Your task to perform on an android device: open app "Firefox Browser" Image 0: 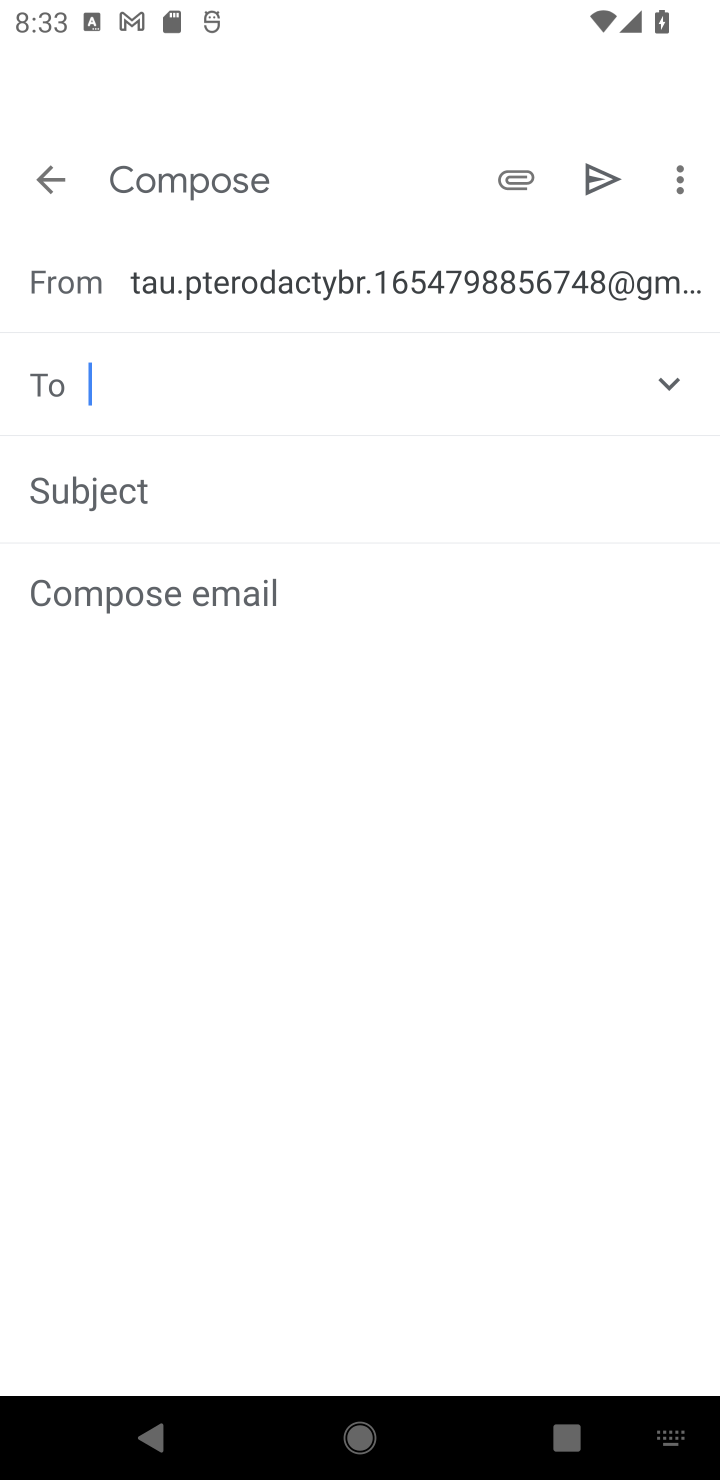
Step 0: press home button
Your task to perform on an android device: open app "Firefox Browser" Image 1: 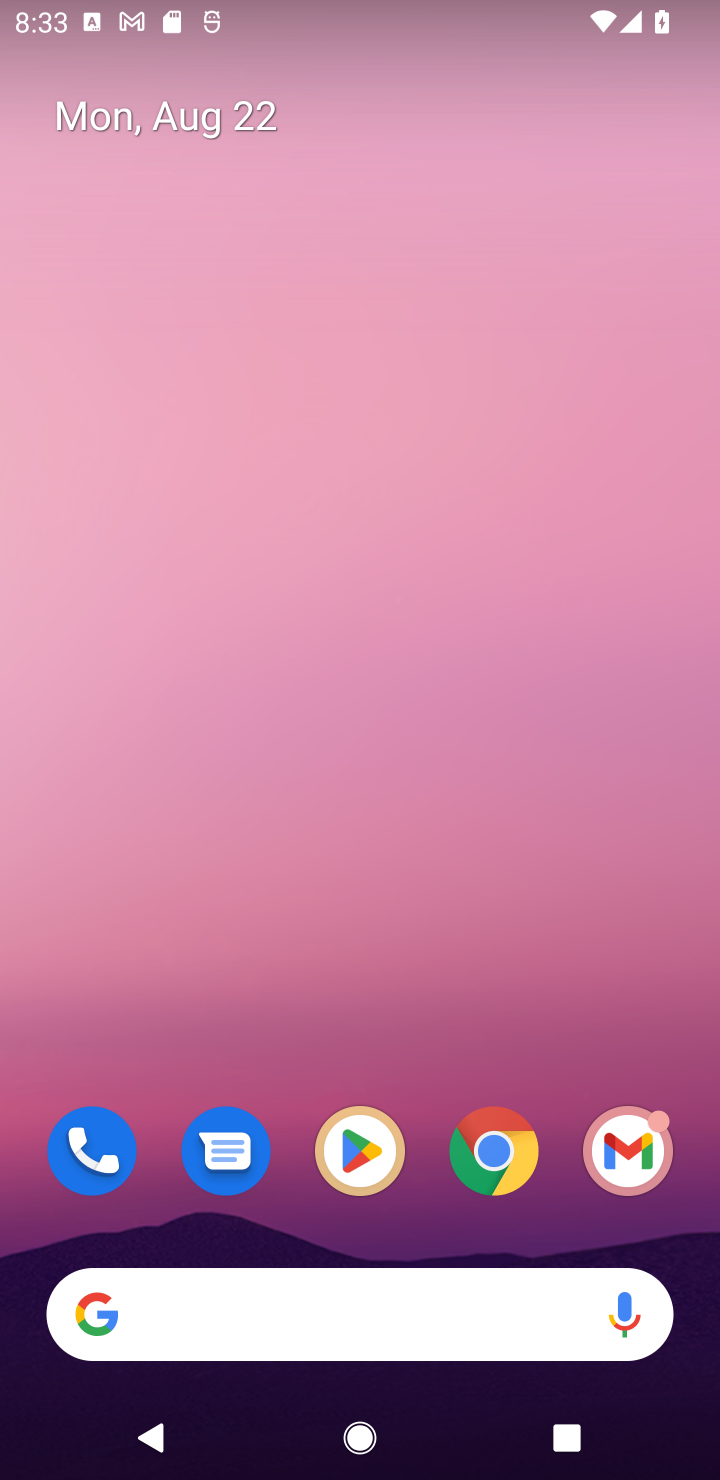
Step 1: click (365, 1163)
Your task to perform on an android device: open app "Firefox Browser" Image 2: 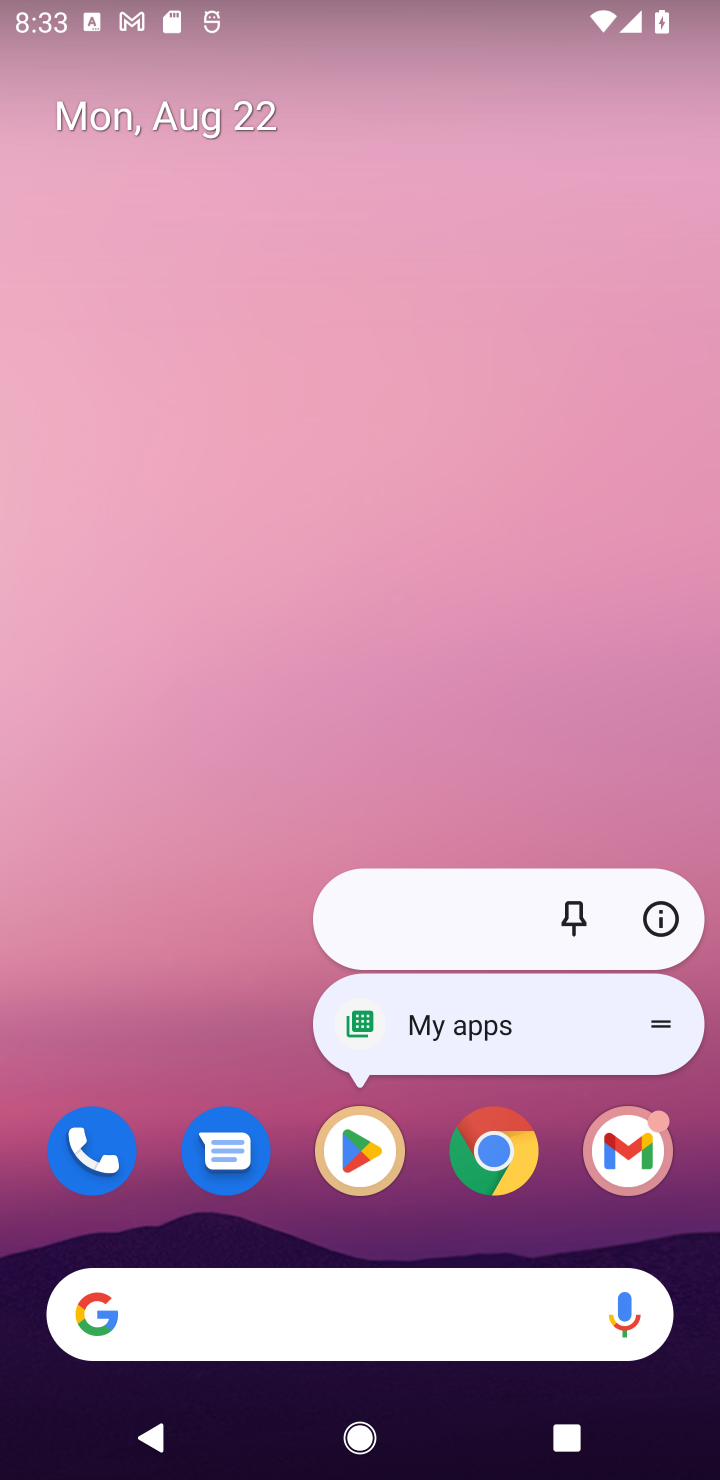
Step 2: click (365, 1168)
Your task to perform on an android device: open app "Firefox Browser" Image 3: 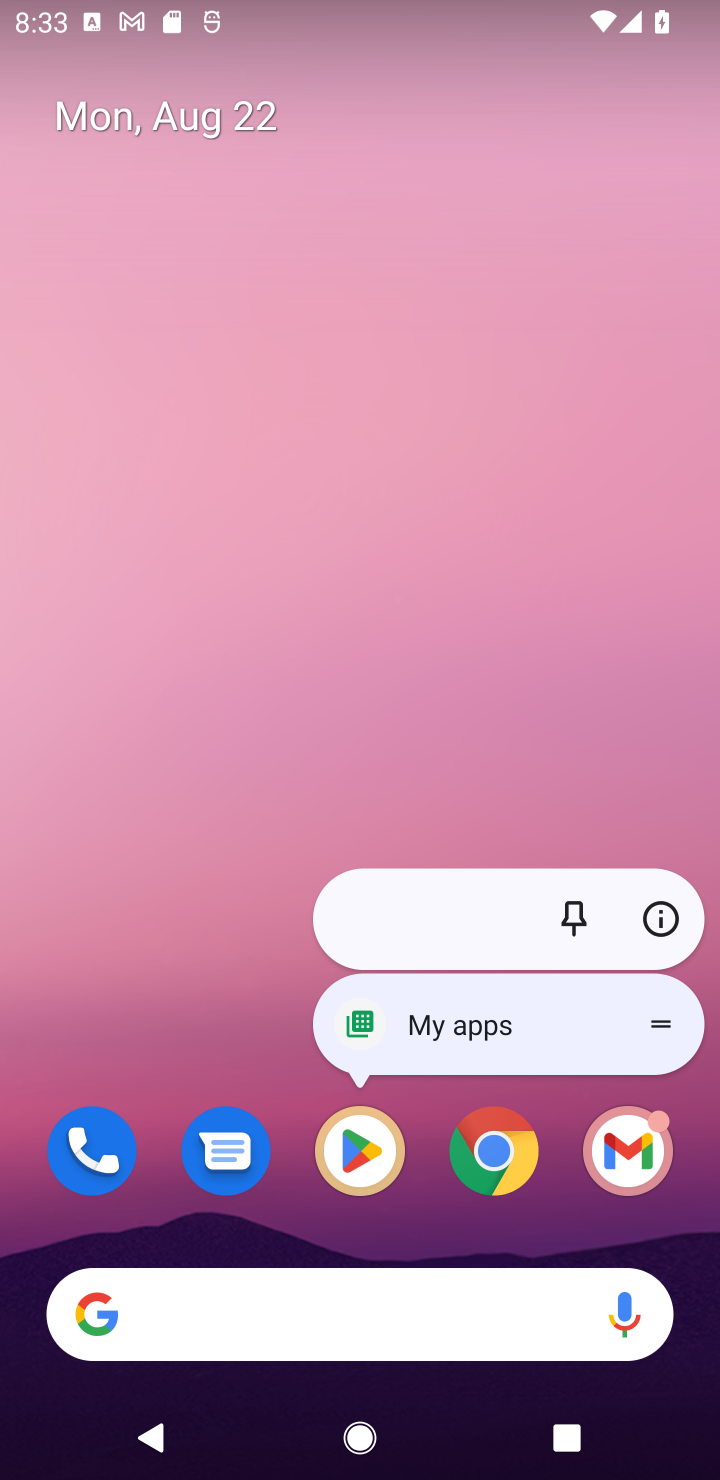
Step 3: click (365, 1168)
Your task to perform on an android device: open app "Firefox Browser" Image 4: 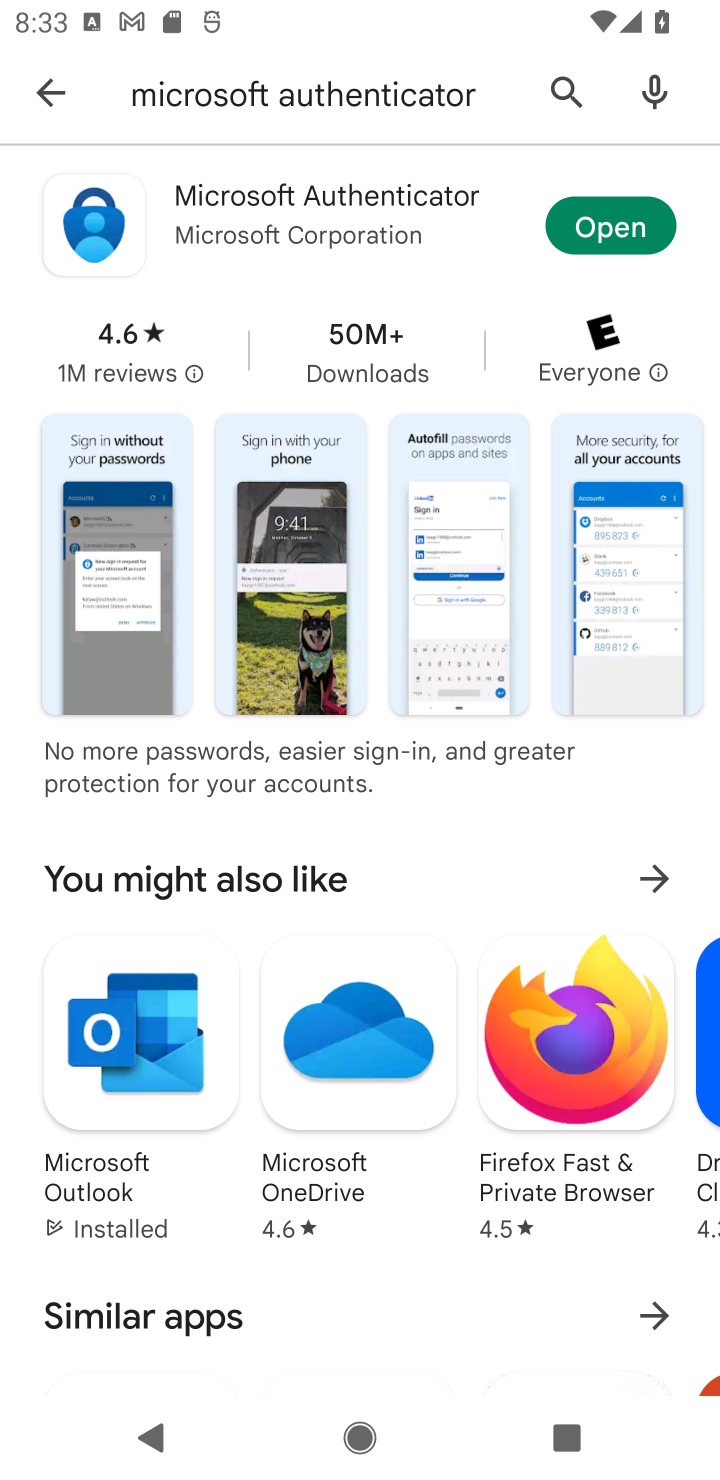
Step 4: click (559, 89)
Your task to perform on an android device: open app "Firefox Browser" Image 5: 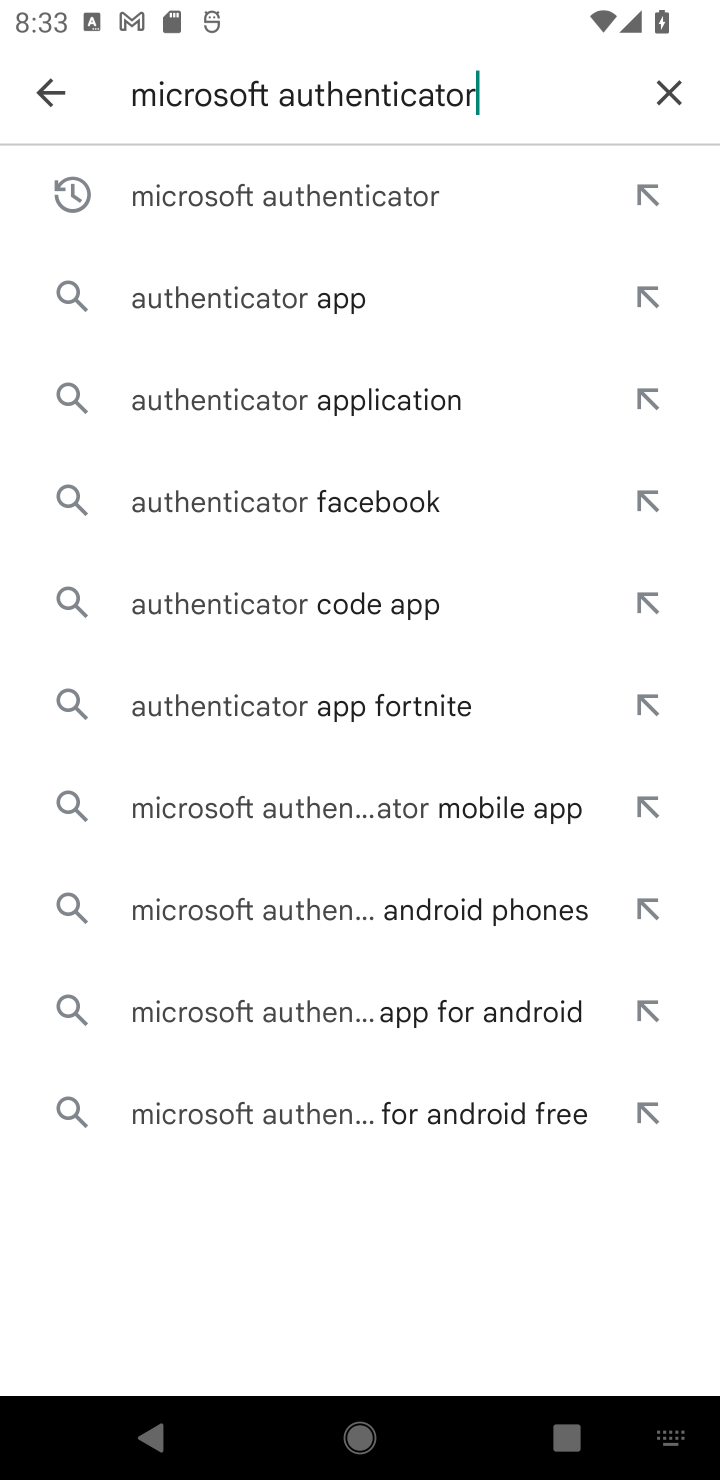
Step 5: click (664, 98)
Your task to perform on an android device: open app "Firefox Browser" Image 6: 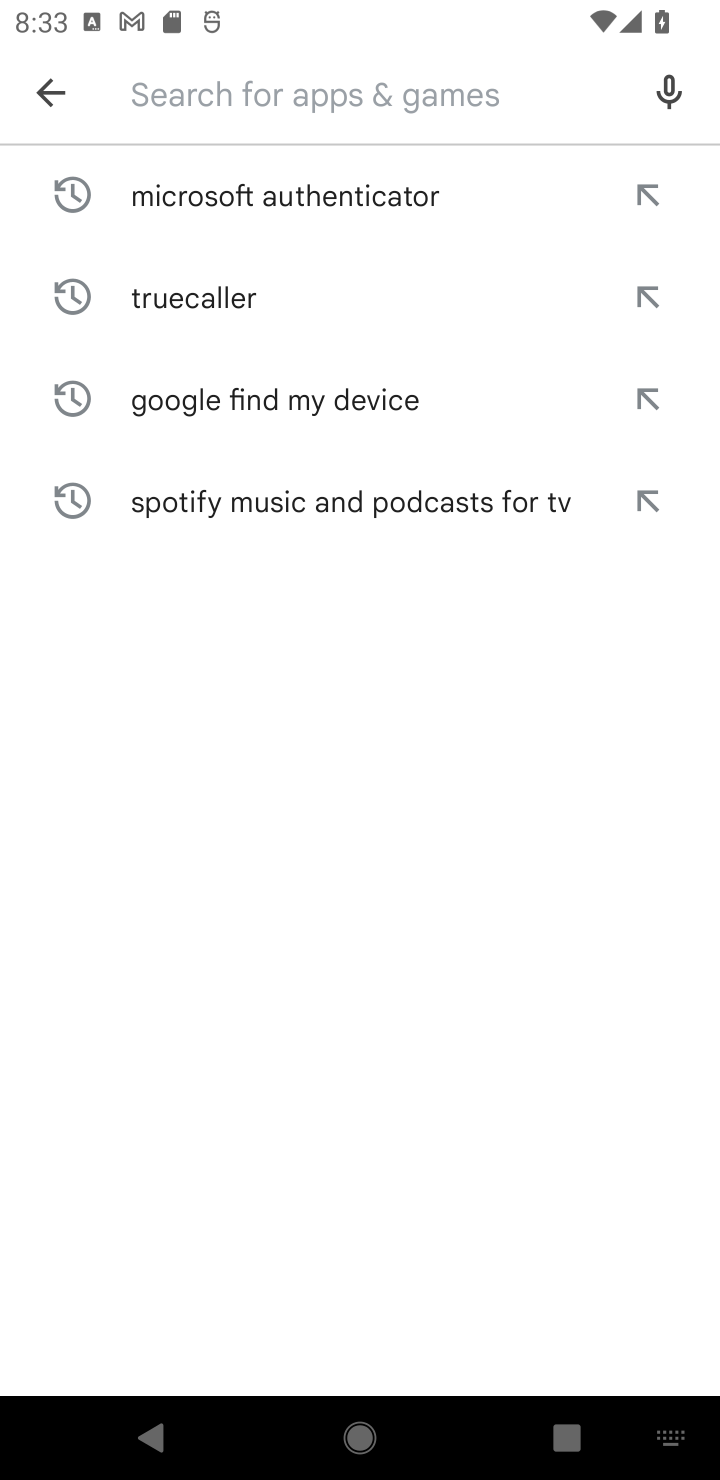
Step 6: type "Firefox Browser"
Your task to perform on an android device: open app "Firefox Browser" Image 7: 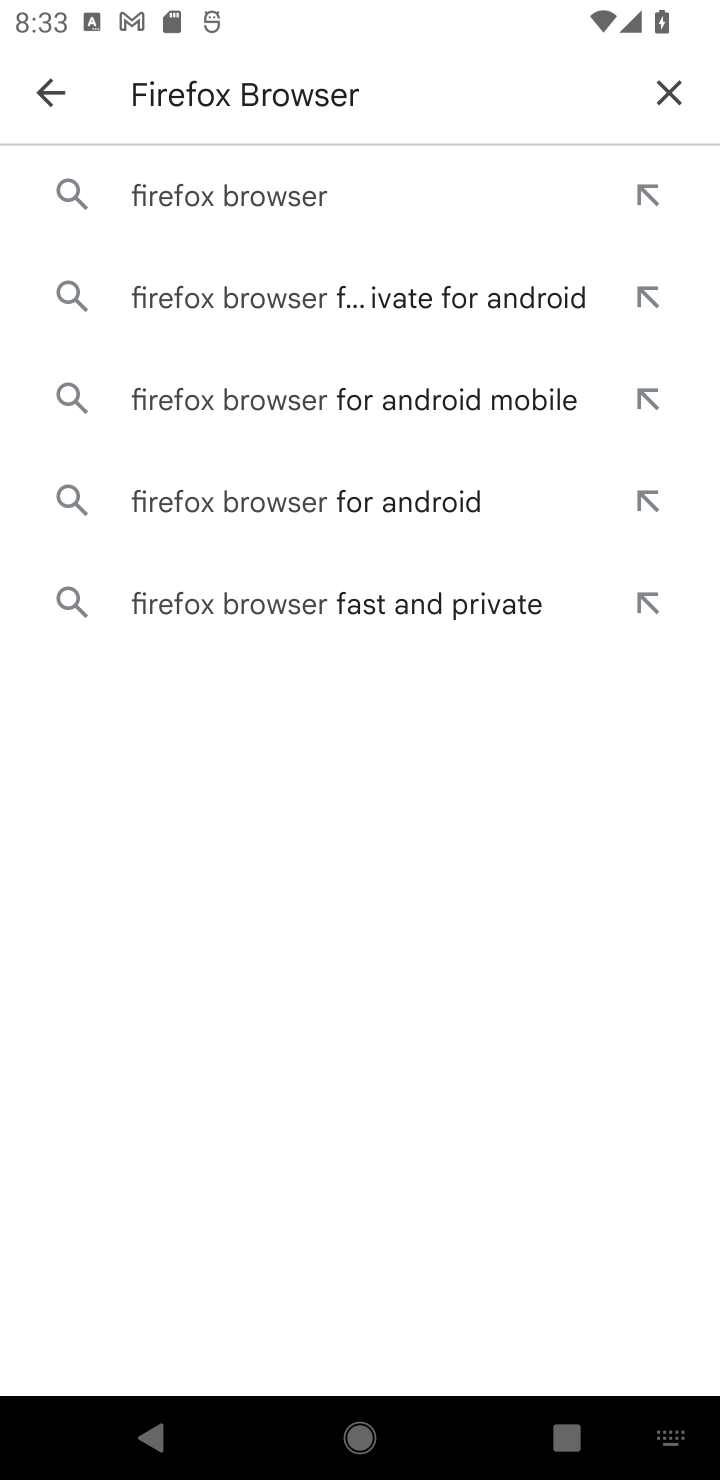
Step 7: click (235, 189)
Your task to perform on an android device: open app "Firefox Browser" Image 8: 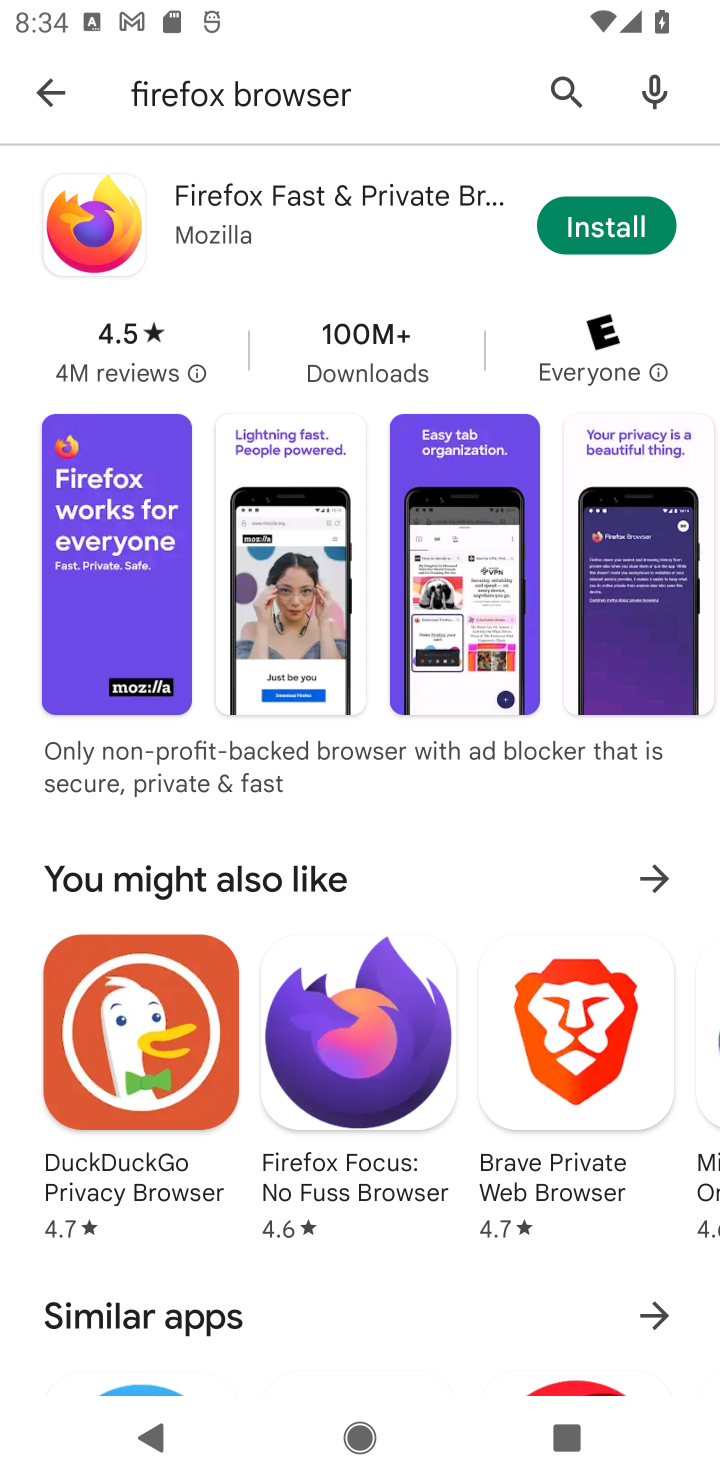
Step 8: task complete